Your task to perform on an android device: Go to Yahoo.com Image 0: 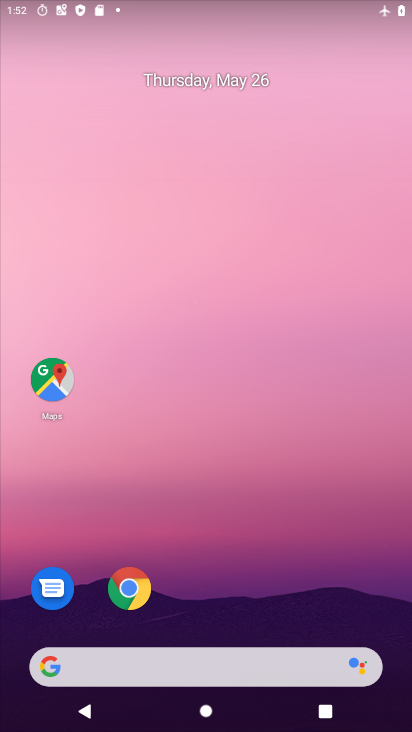
Step 0: click (127, 579)
Your task to perform on an android device: Go to Yahoo.com Image 1: 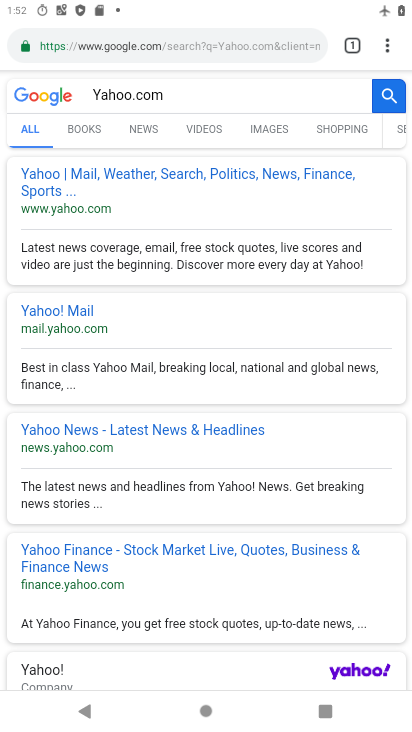
Step 1: task complete